Your task to perform on an android device: see sites visited before in the chrome app Image 0: 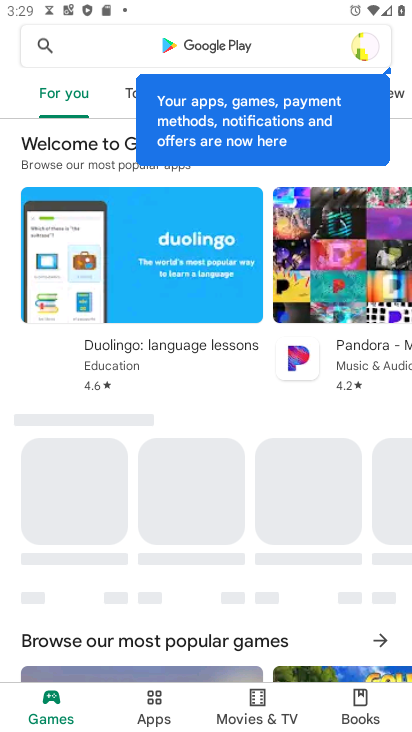
Step 0: press home button
Your task to perform on an android device: see sites visited before in the chrome app Image 1: 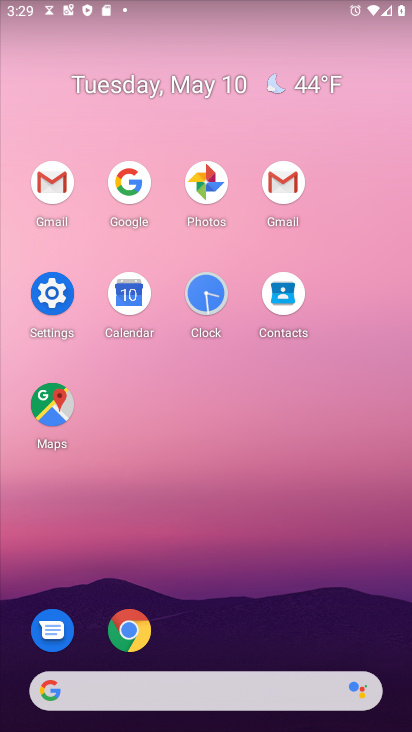
Step 1: click (125, 627)
Your task to perform on an android device: see sites visited before in the chrome app Image 2: 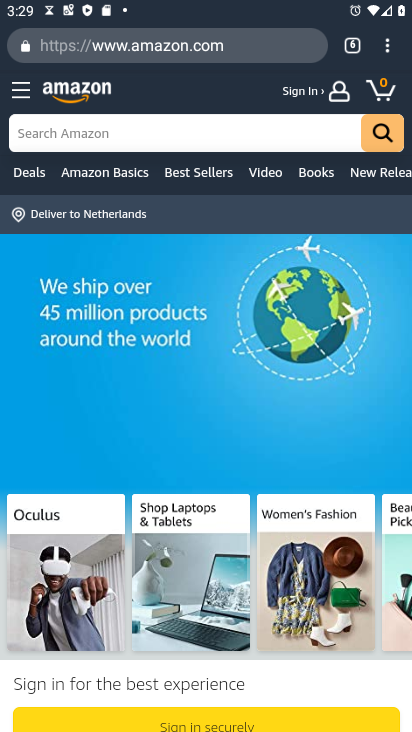
Step 2: click (391, 43)
Your task to perform on an android device: see sites visited before in the chrome app Image 3: 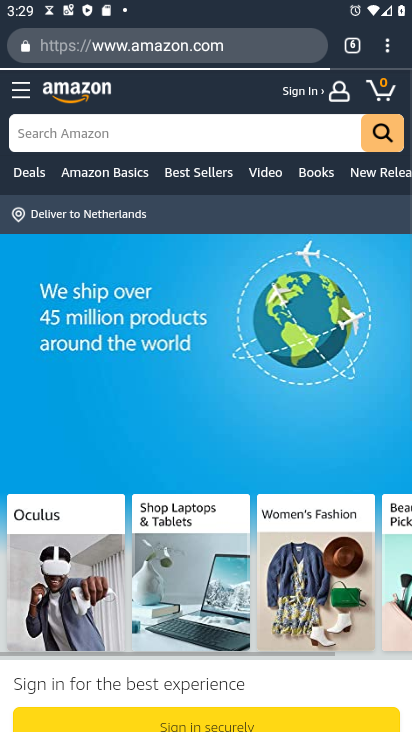
Step 3: click (387, 46)
Your task to perform on an android device: see sites visited before in the chrome app Image 4: 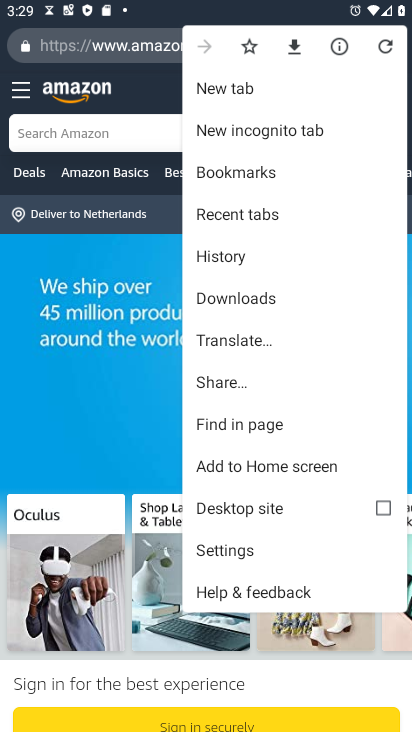
Step 4: click (240, 263)
Your task to perform on an android device: see sites visited before in the chrome app Image 5: 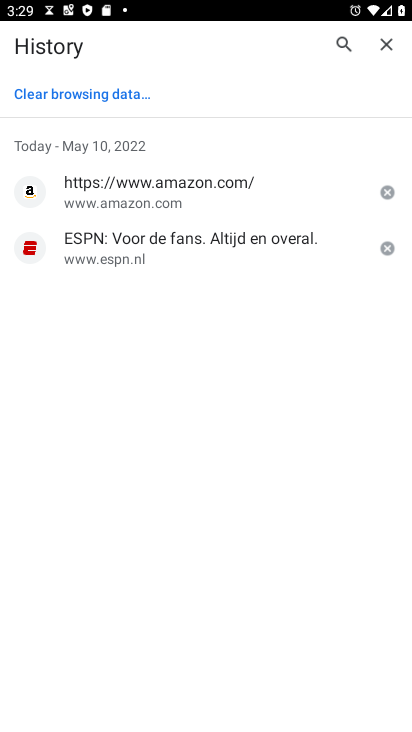
Step 5: task complete